Your task to perform on an android device: open app "File Manager" Image 0: 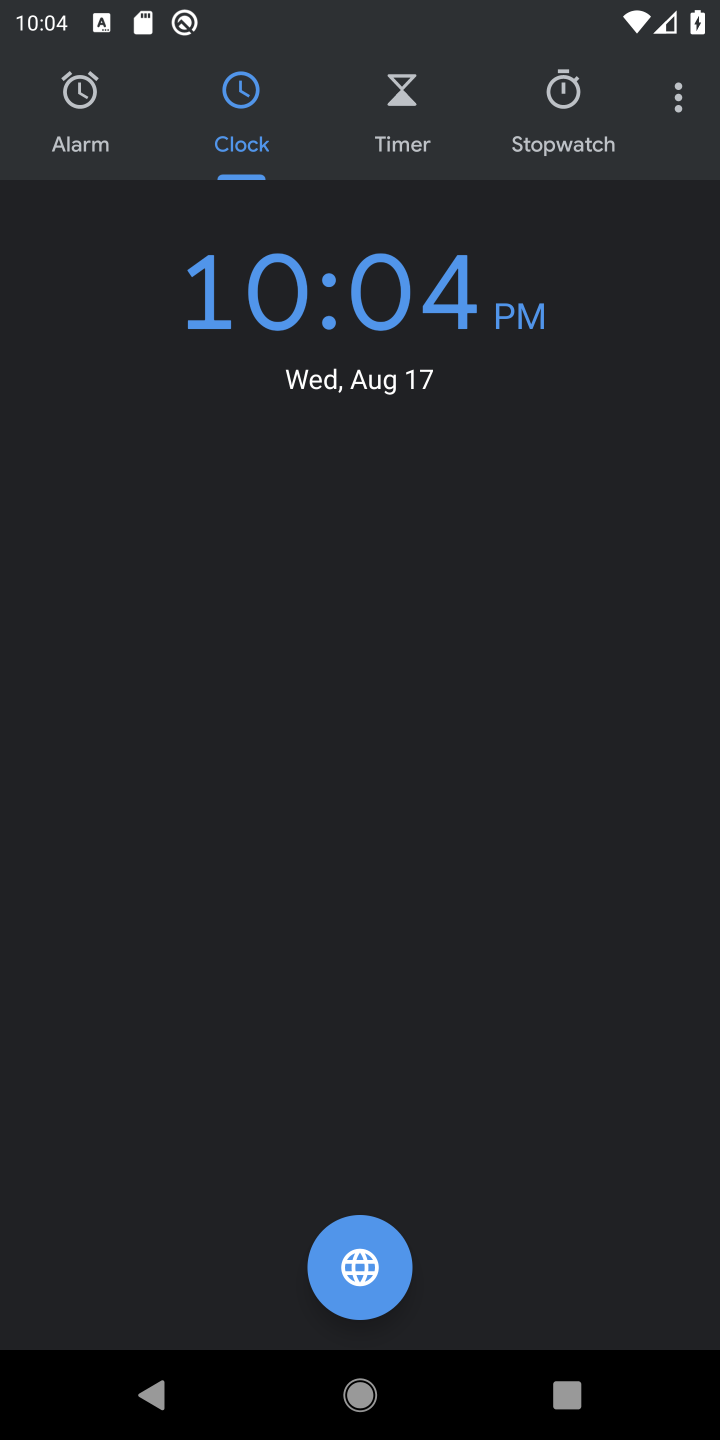
Step 0: press home button
Your task to perform on an android device: open app "File Manager" Image 1: 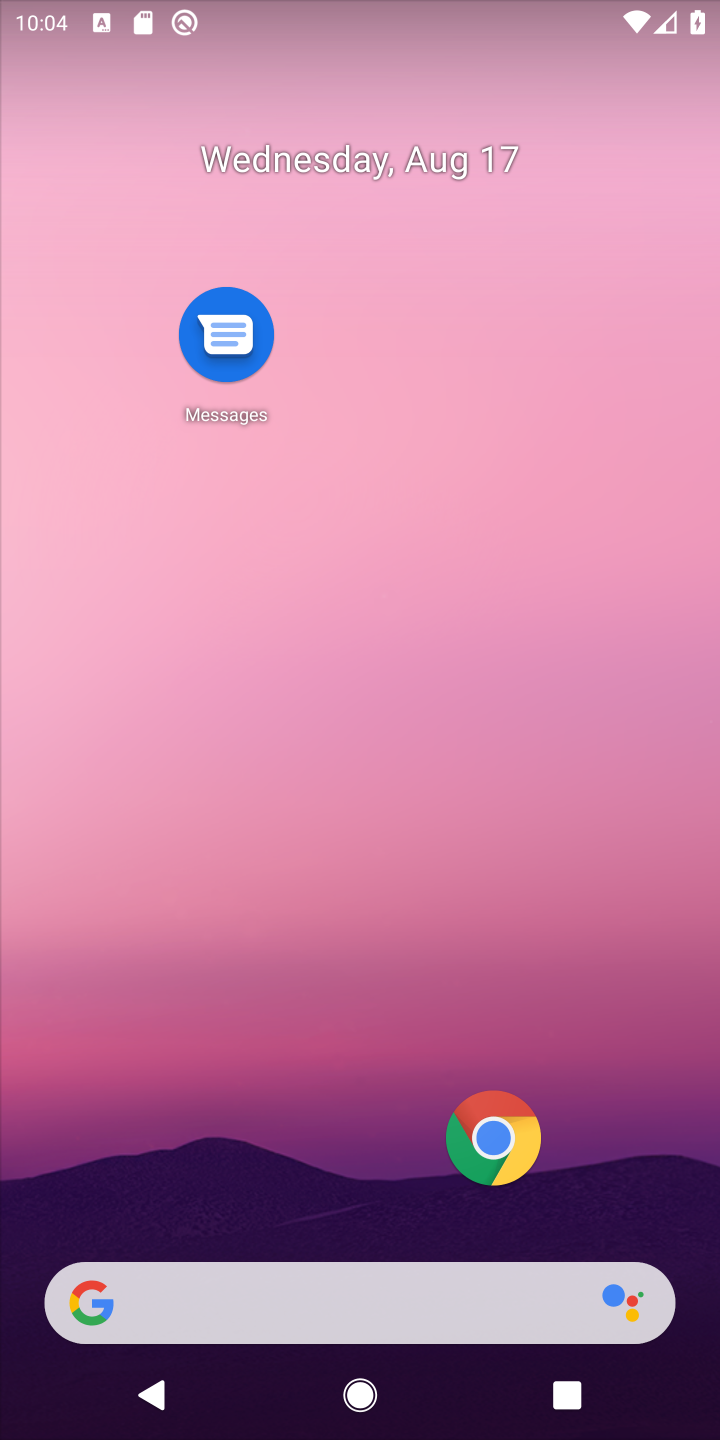
Step 1: drag from (381, 987) to (415, 645)
Your task to perform on an android device: open app "File Manager" Image 2: 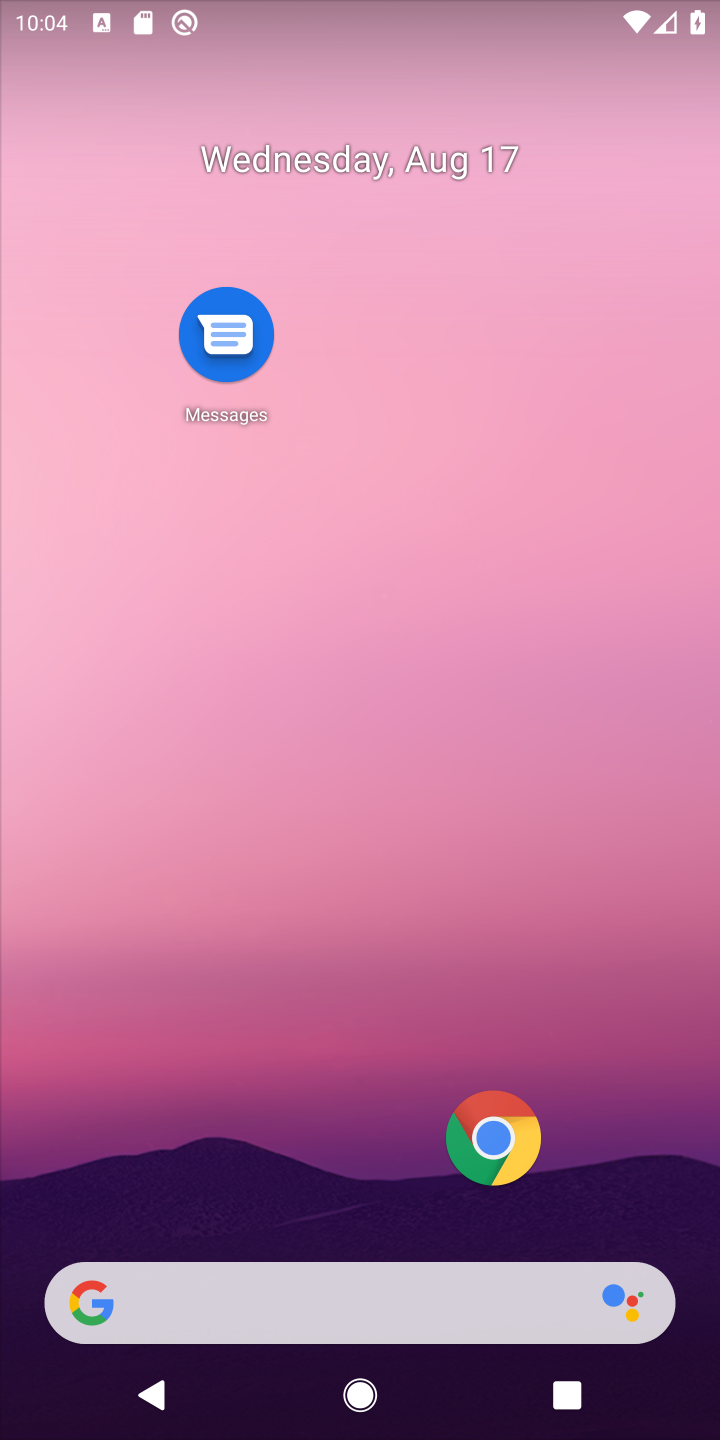
Step 2: drag from (306, 1042) to (323, 388)
Your task to perform on an android device: open app "File Manager" Image 3: 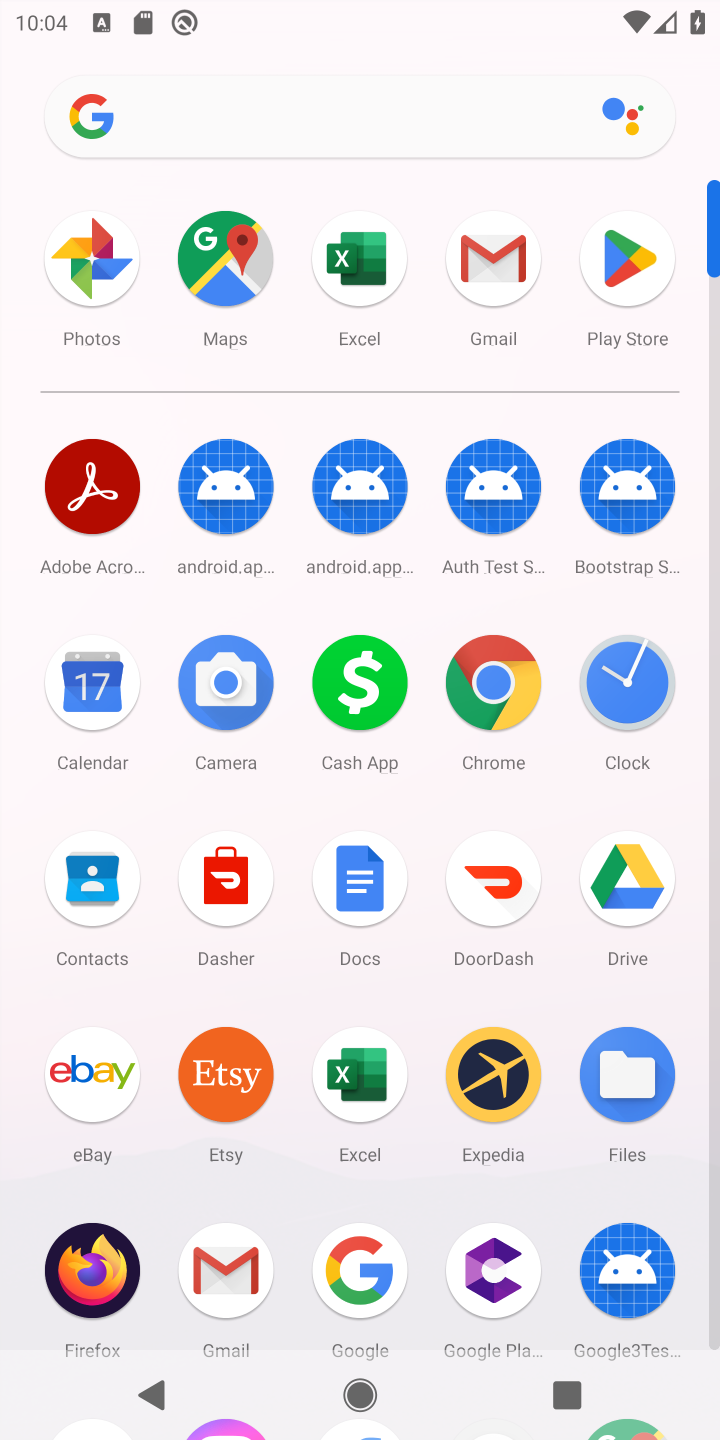
Step 3: click (635, 243)
Your task to perform on an android device: open app "File Manager" Image 4: 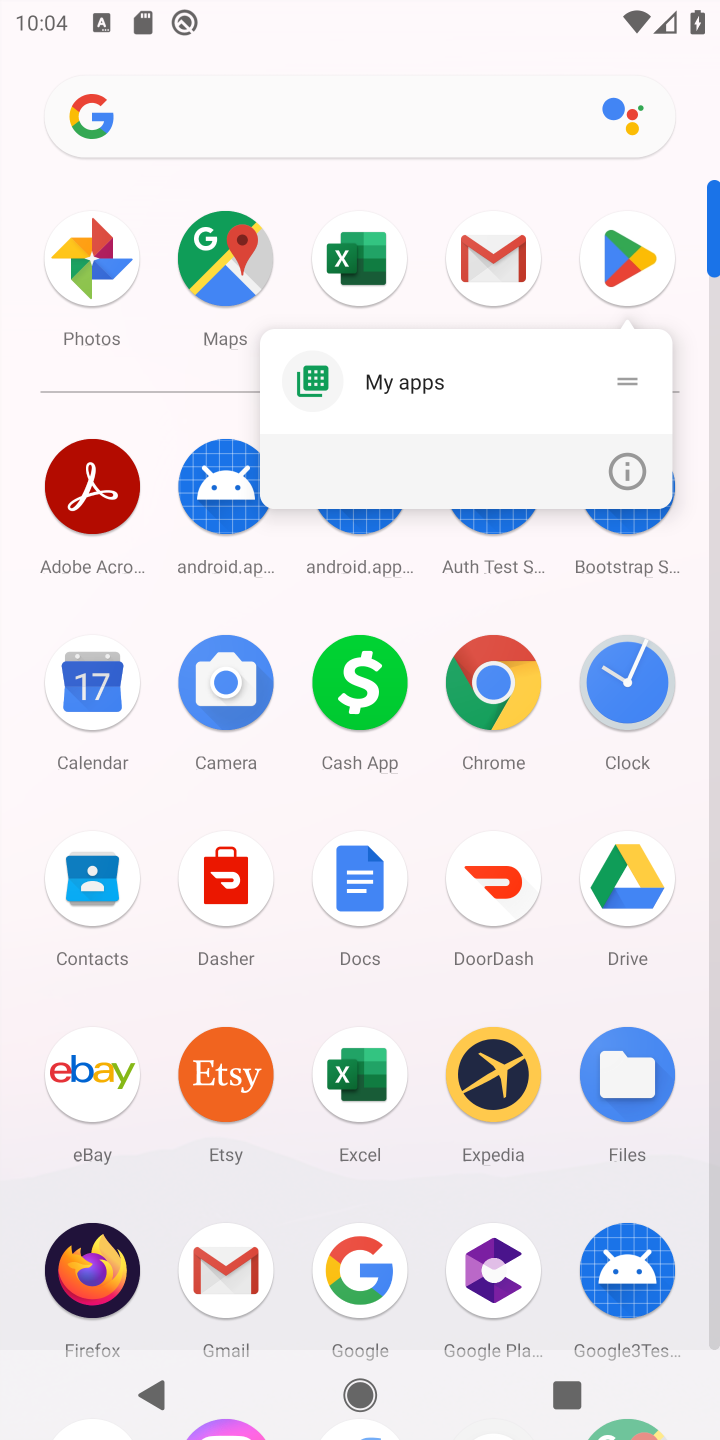
Step 4: click (623, 250)
Your task to perform on an android device: open app "File Manager" Image 5: 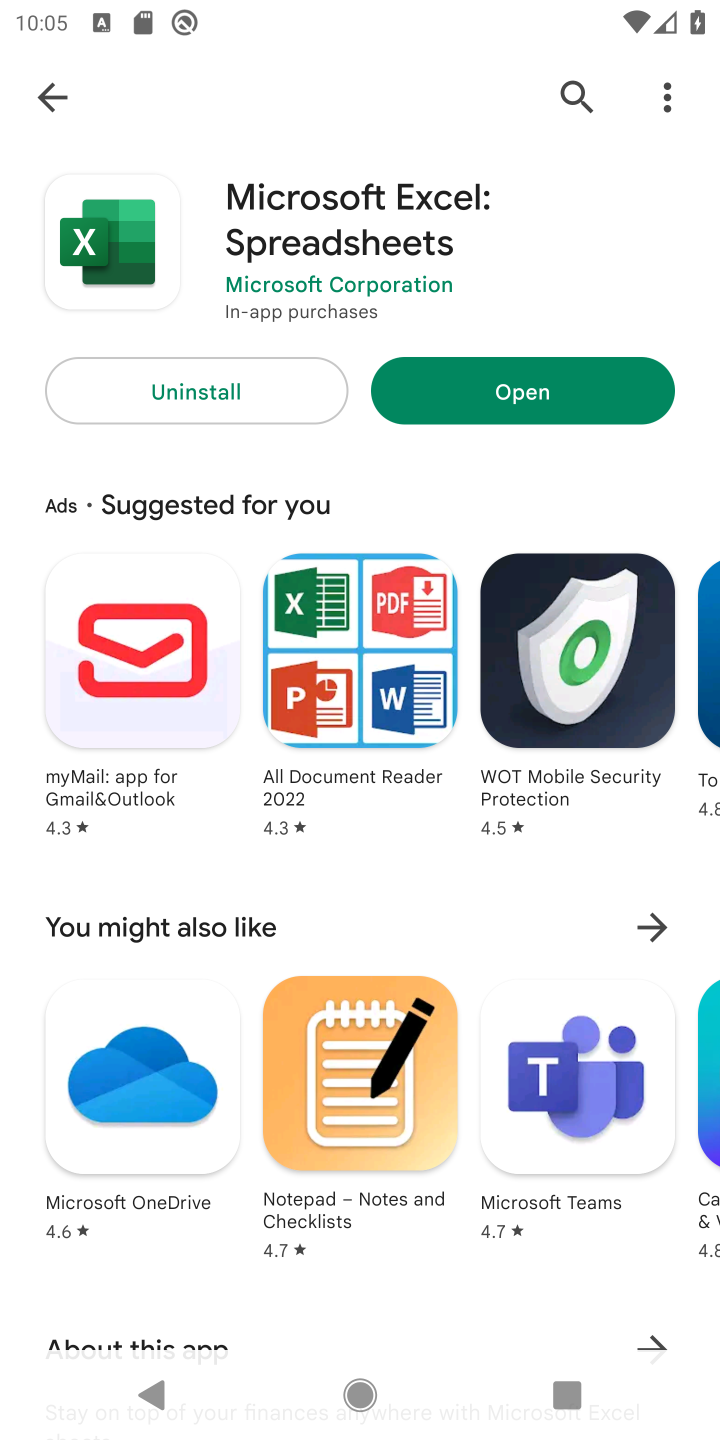
Step 5: click (47, 80)
Your task to perform on an android device: open app "File Manager" Image 6: 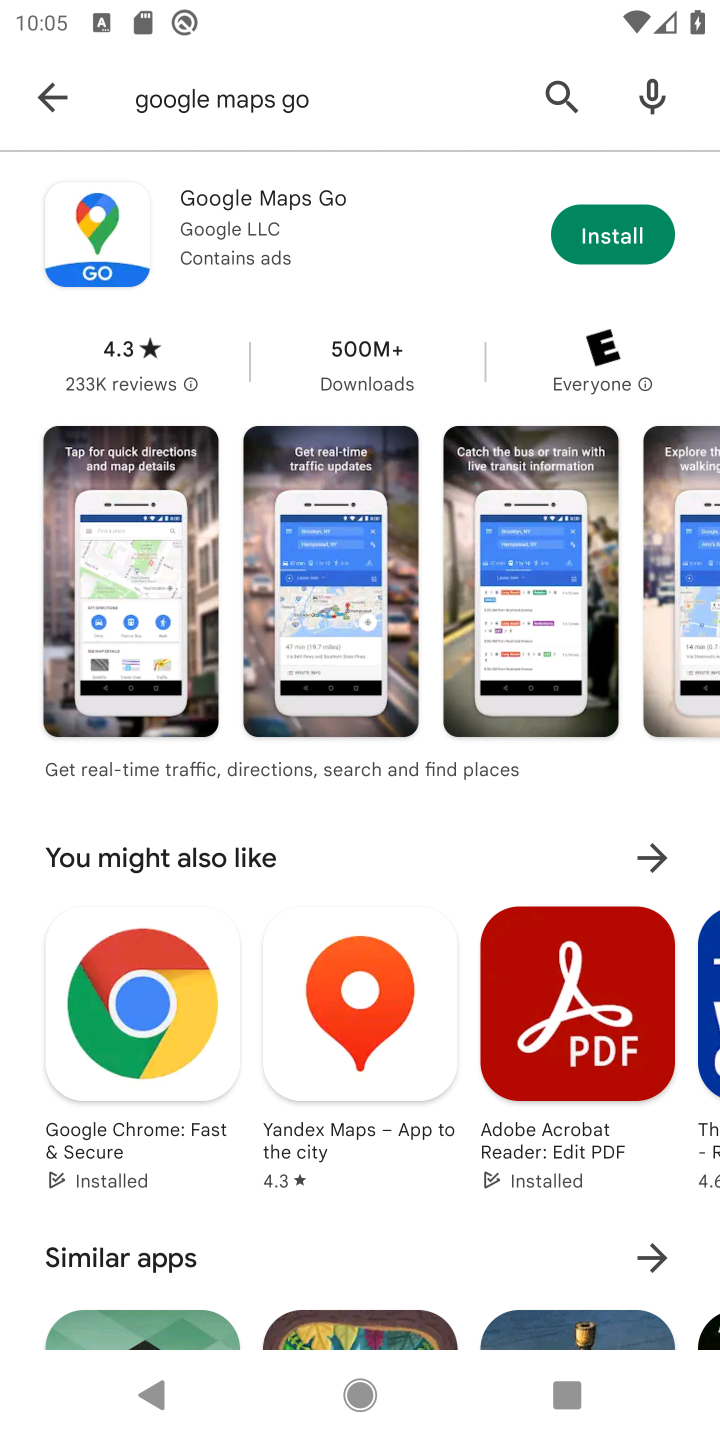
Step 6: click (47, 80)
Your task to perform on an android device: open app "File Manager" Image 7: 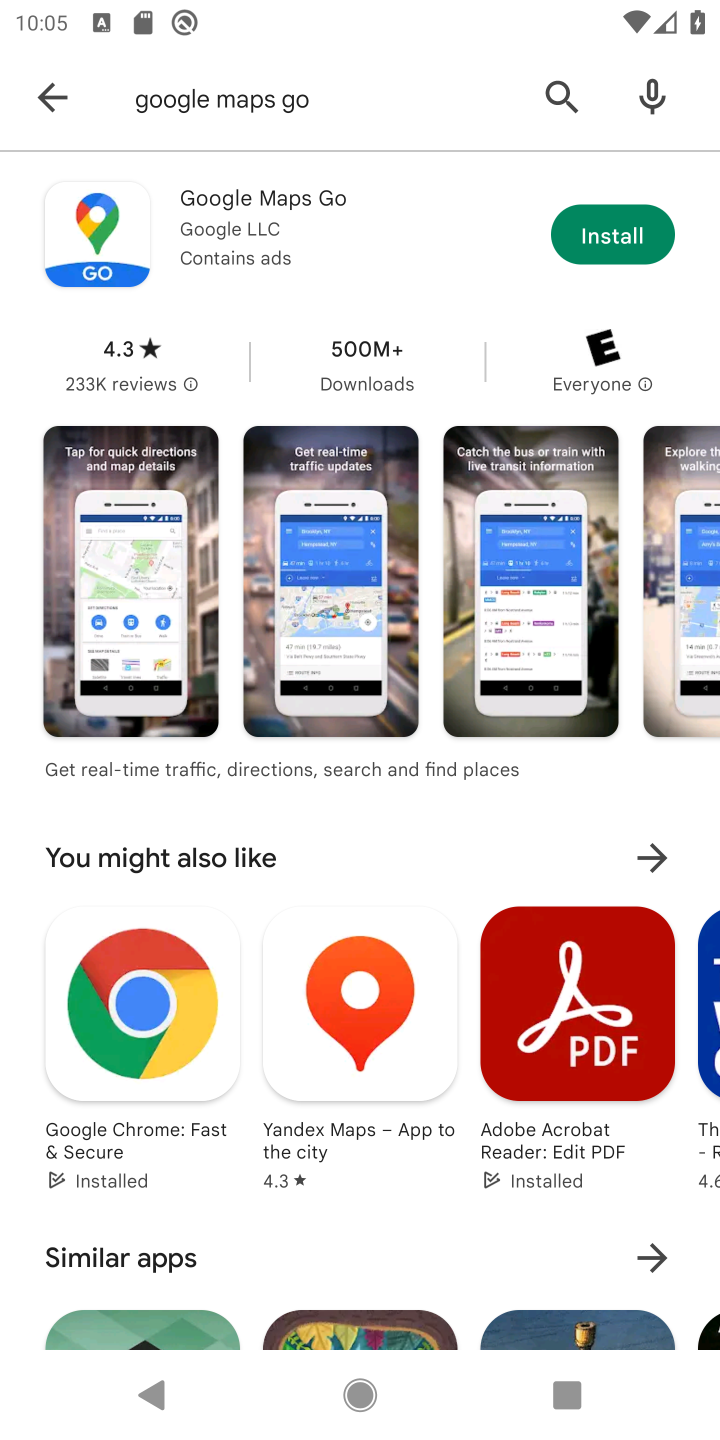
Step 7: click (87, 93)
Your task to perform on an android device: open app "File Manager" Image 8: 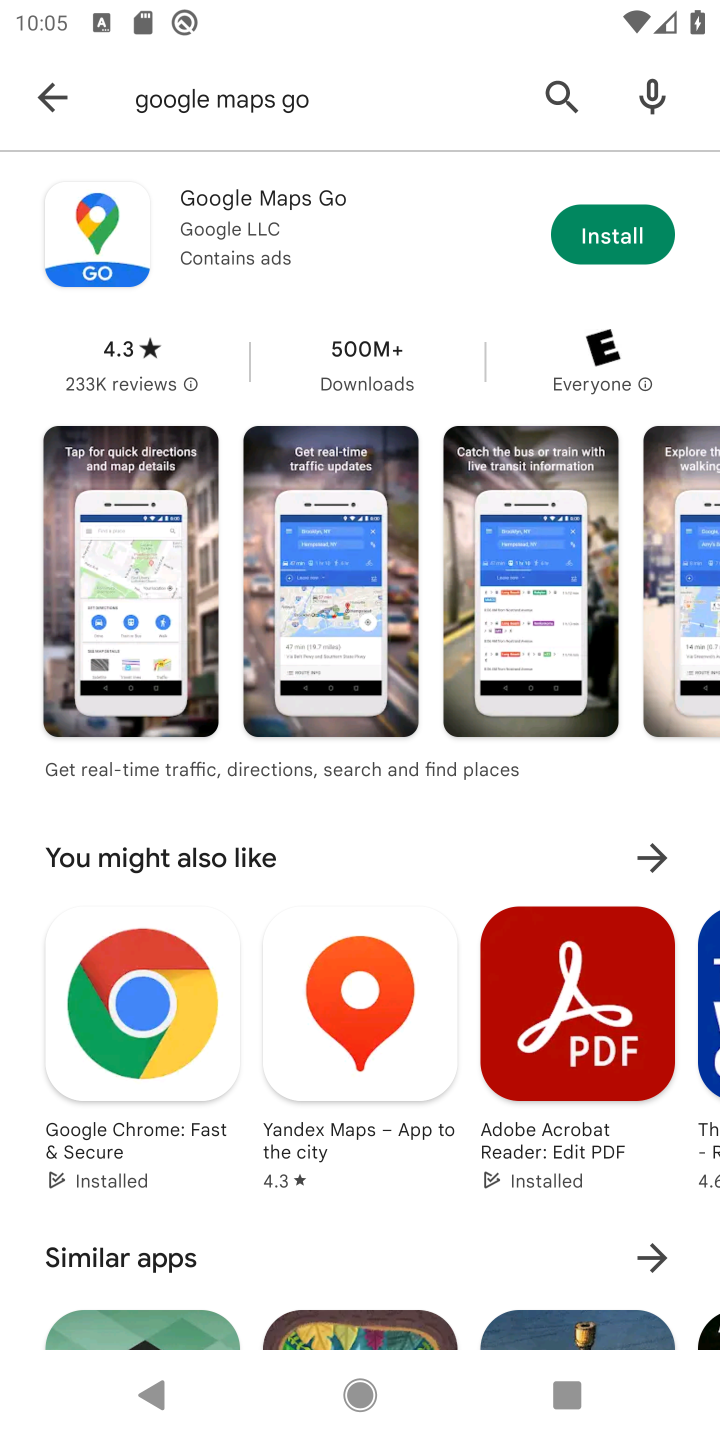
Step 8: click (575, 81)
Your task to perform on an android device: open app "File Manager" Image 9: 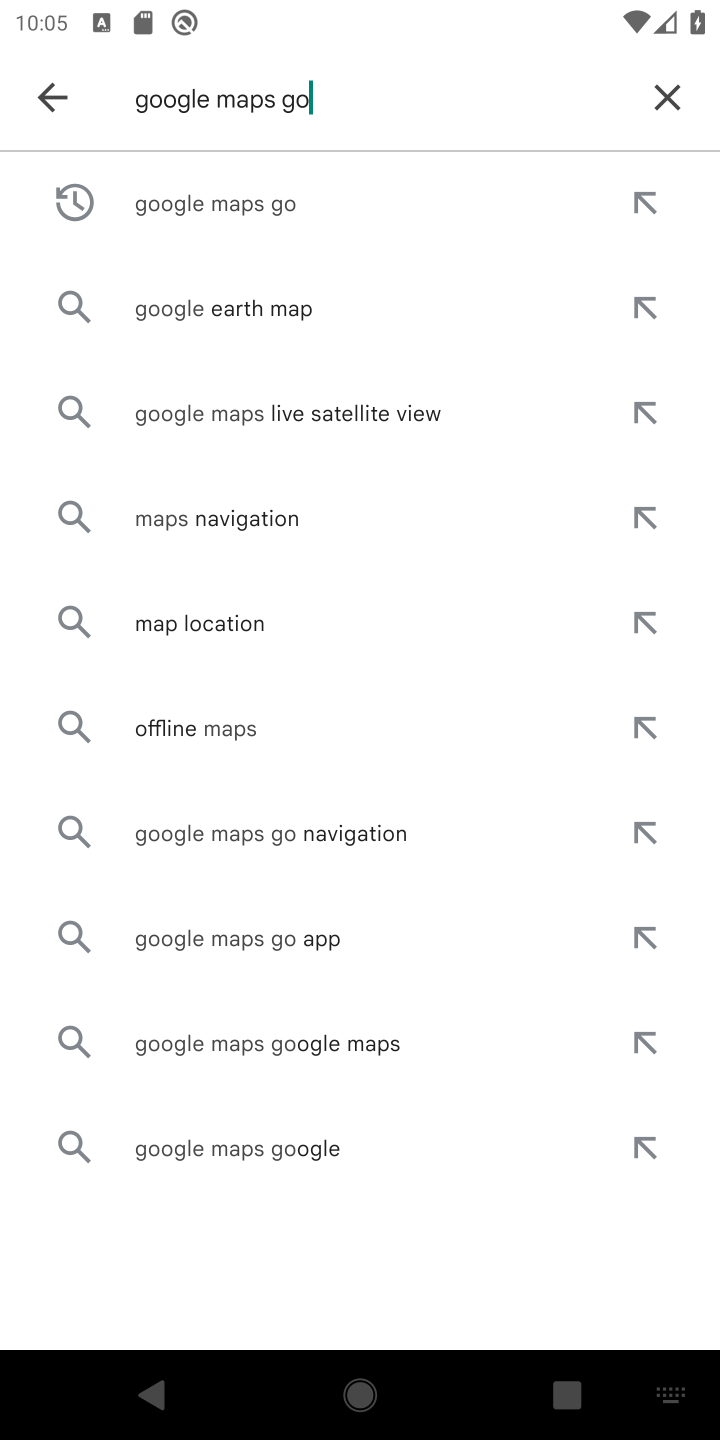
Step 9: click (668, 96)
Your task to perform on an android device: open app "File Manager" Image 10: 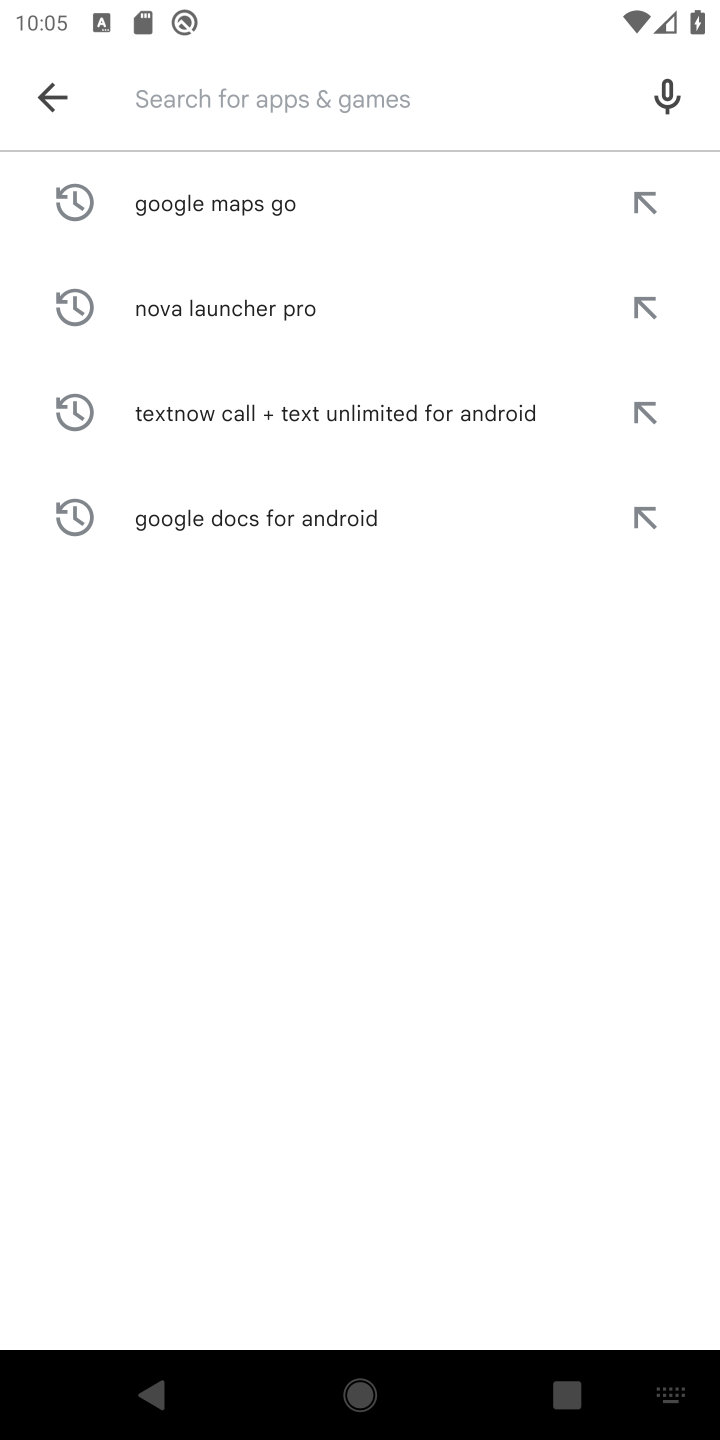
Step 10: click (379, 106)
Your task to perform on an android device: open app "File Manager" Image 11: 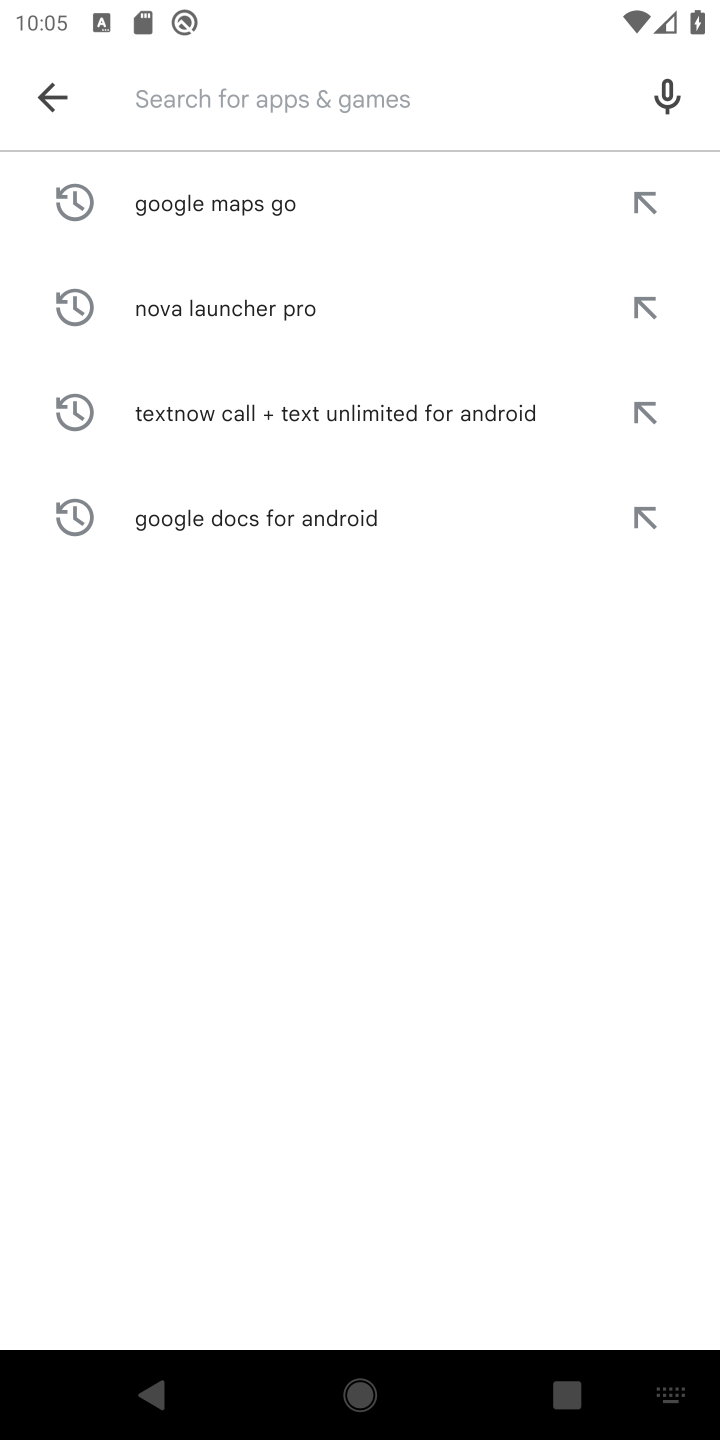
Step 11: type "File Manager "
Your task to perform on an android device: open app "File Manager" Image 12: 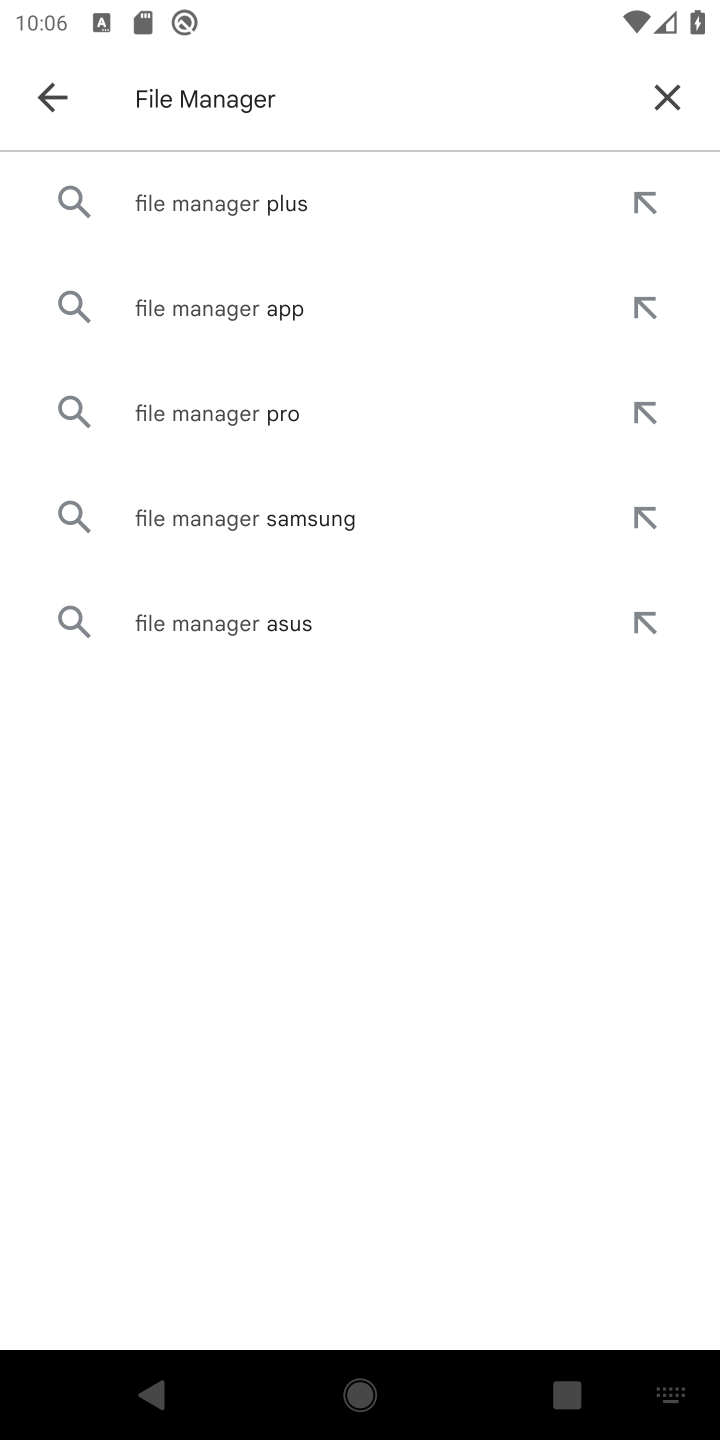
Step 12: click (214, 214)
Your task to perform on an android device: open app "File Manager" Image 13: 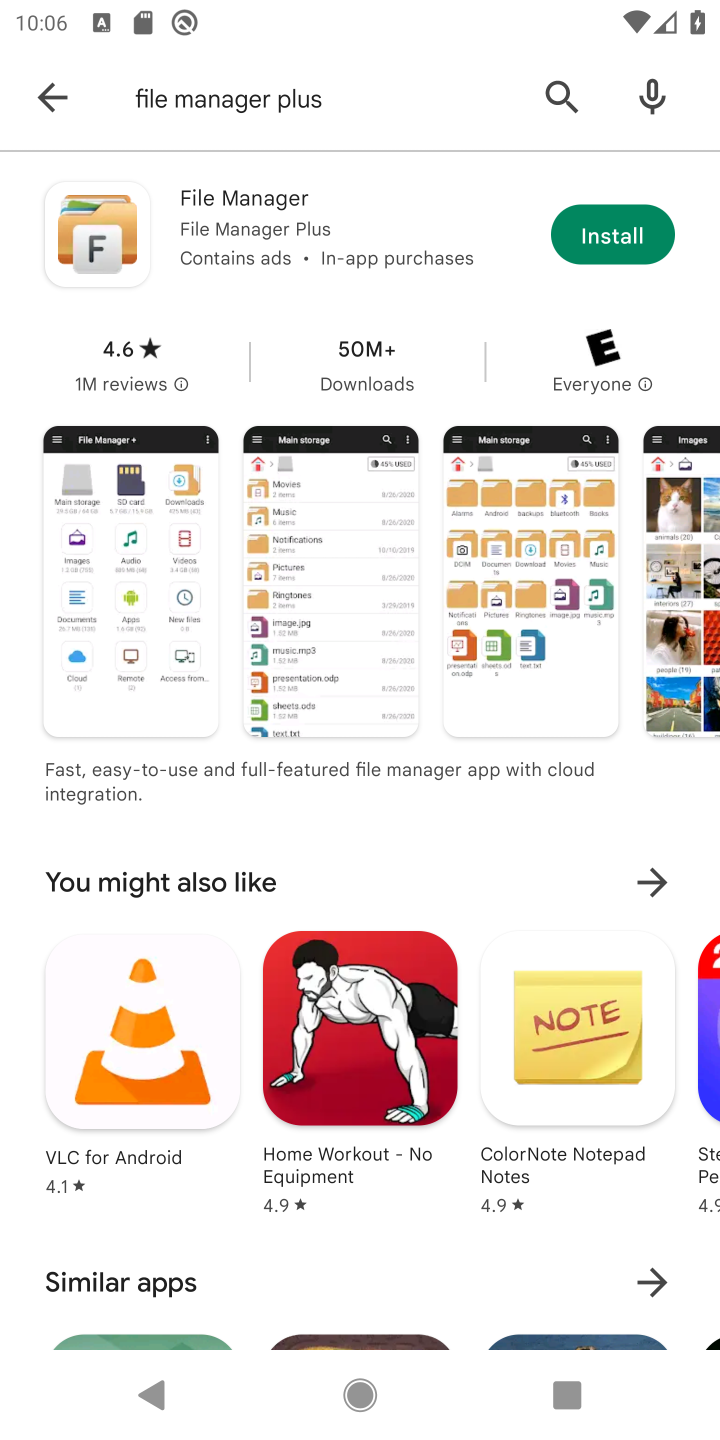
Step 13: click (617, 244)
Your task to perform on an android device: open app "File Manager" Image 14: 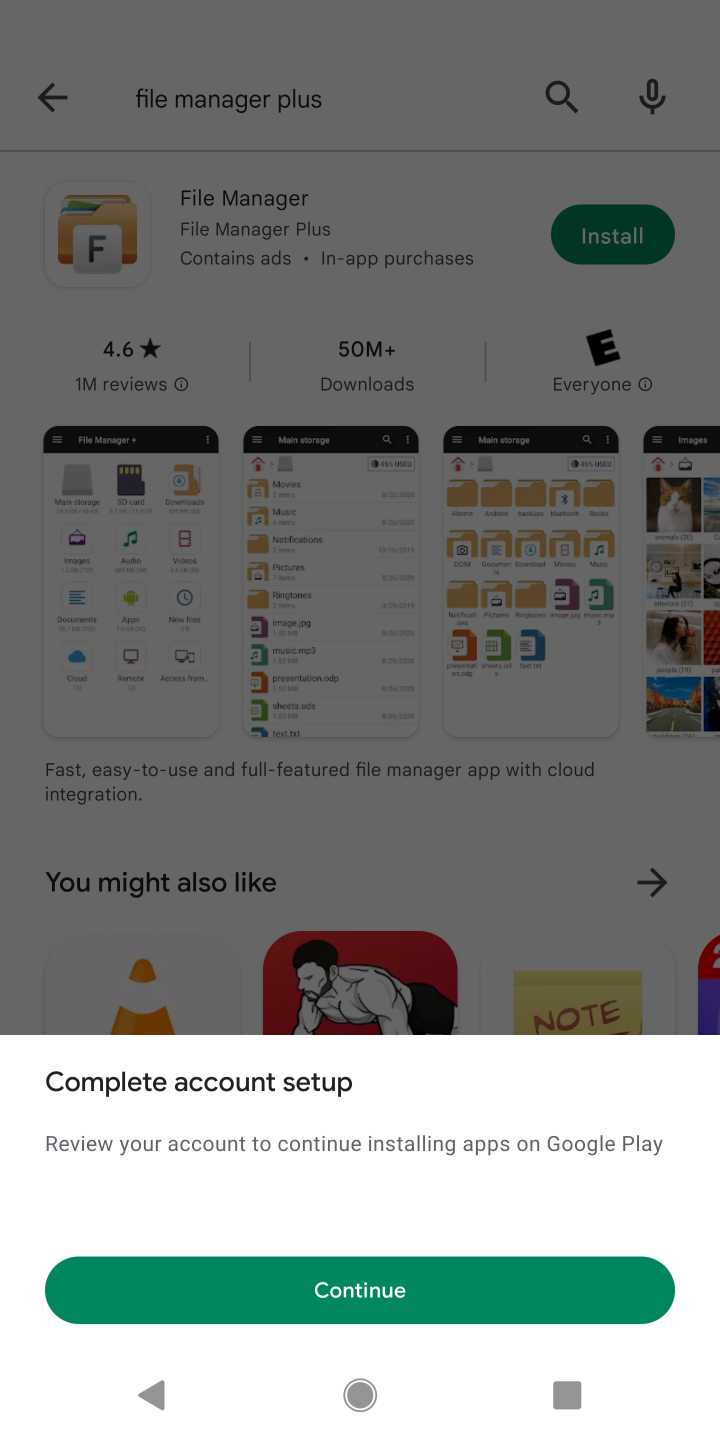
Step 14: task complete